Your task to perform on an android device: open wifi settings Image 0: 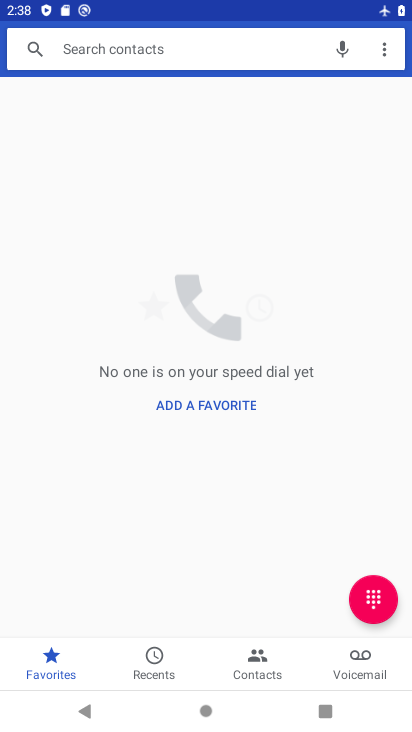
Step 0: press home button
Your task to perform on an android device: open wifi settings Image 1: 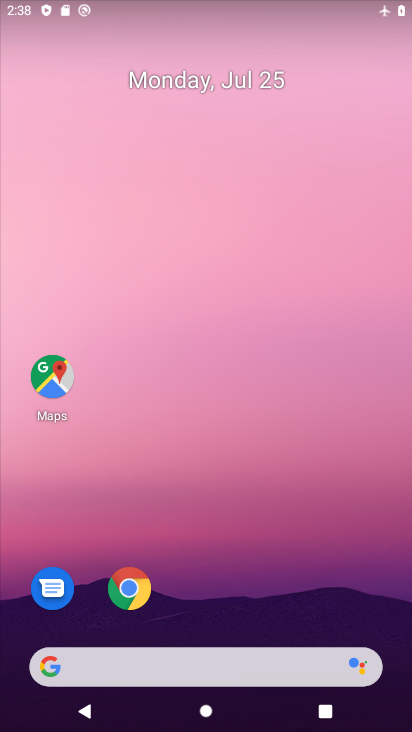
Step 1: drag from (235, 688) to (253, 301)
Your task to perform on an android device: open wifi settings Image 2: 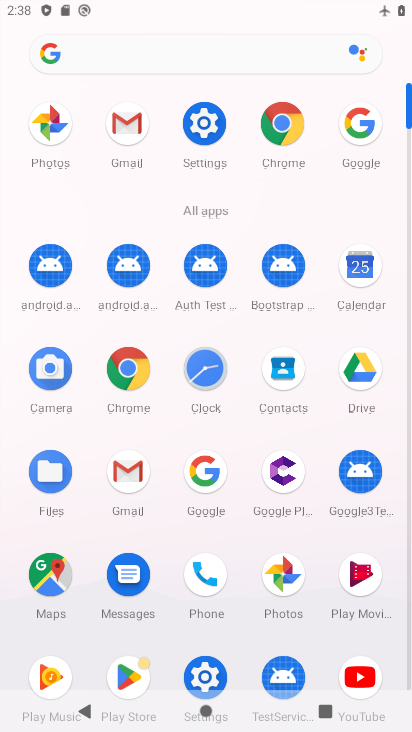
Step 2: click (197, 121)
Your task to perform on an android device: open wifi settings Image 3: 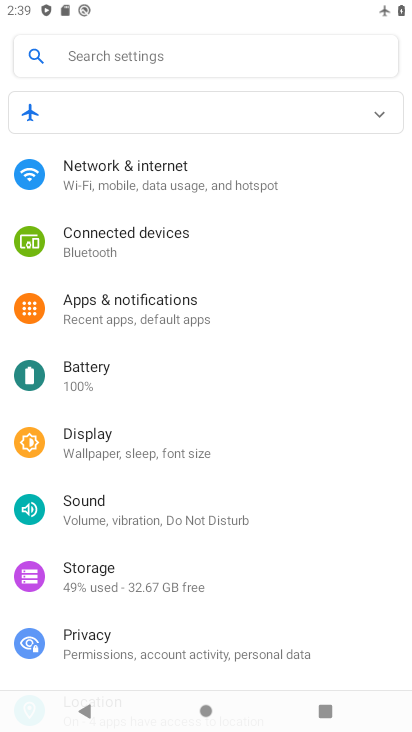
Step 3: click (145, 167)
Your task to perform on an android device: open wifi settings Image 4: 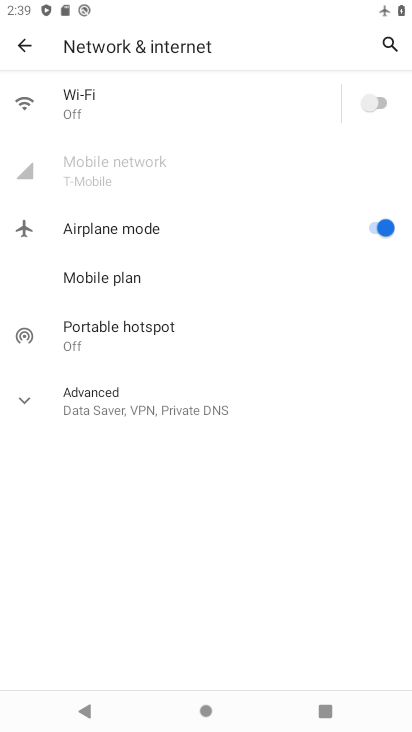
Step 4: click (69, 103)
Your task to perform on an android device: open wifi settings Image 5: 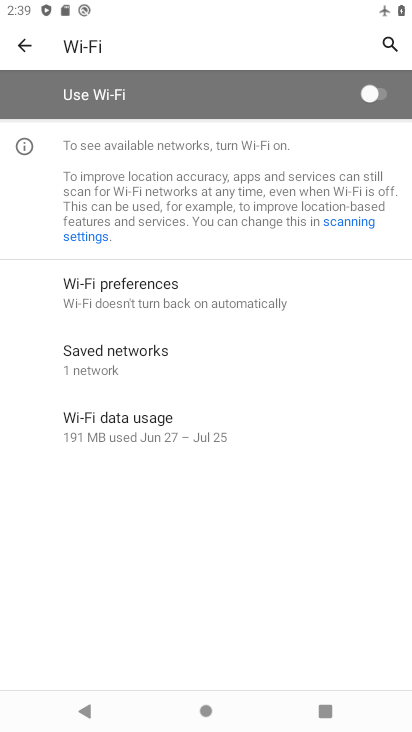
Step 5: task complete